Your task to perform on an android device: toggle data saver in the chrome app Image 0: 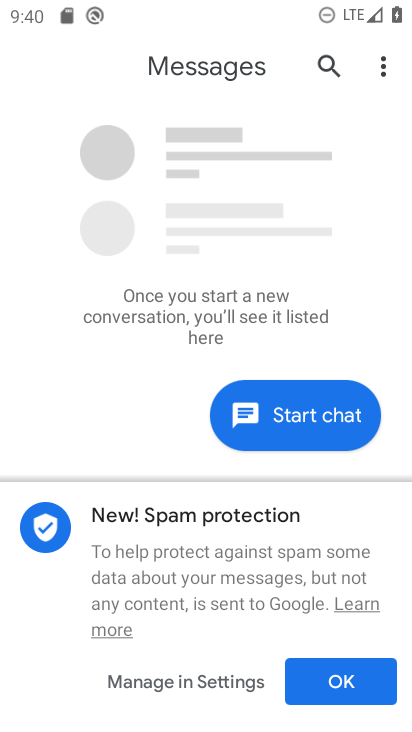
Step 0: press home button
Your task to perform on an android device: toggle data saver in the chrome app Image 1: 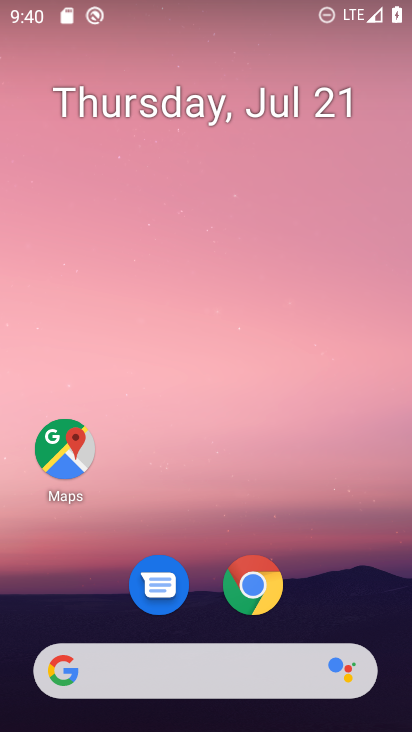
Step 1: click (266, 586)
Your task to perform on an android device: toggle data saver in the chrome app Image 2: 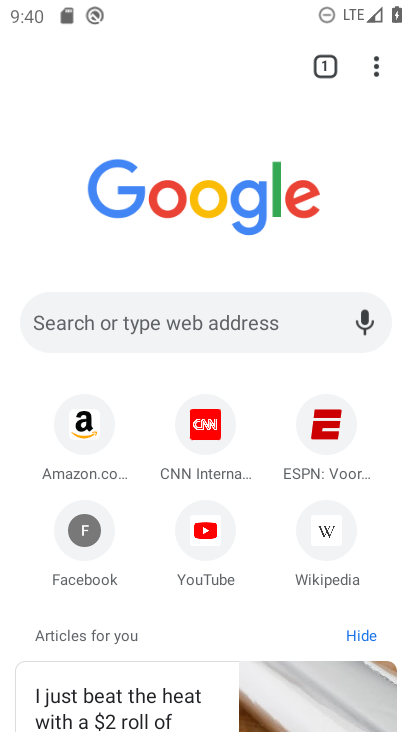
Step 2: click (372, 71)
Your task to perform on an android device: toggle data saver in the chrome app Image 3: 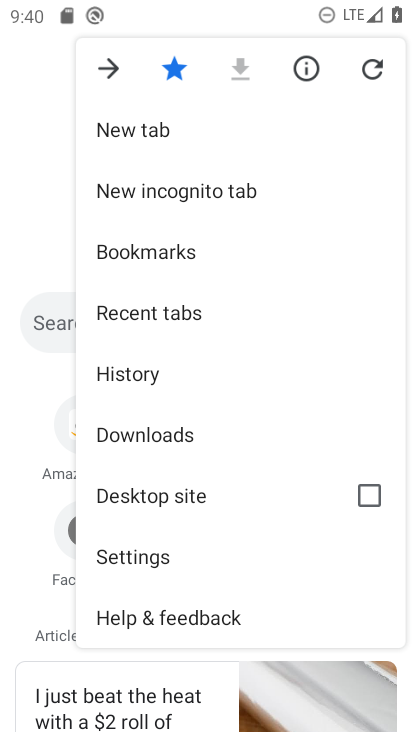
Step 3: click (157, 555)
Your task to perform on an android device: toggle data saver in the chrome app Image 4: 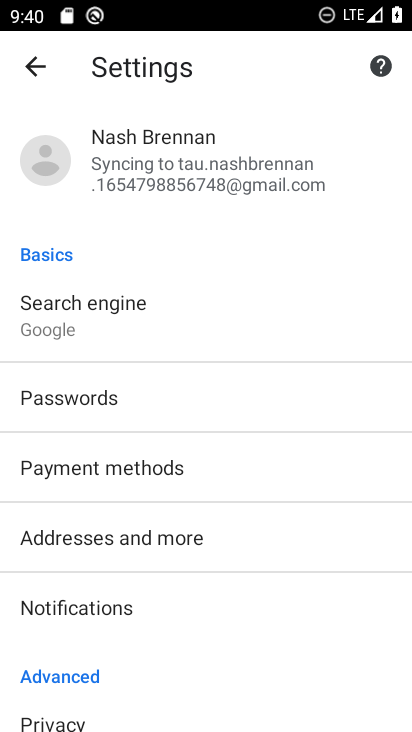
Step 4: drag from (224, 622) to (227, 192)
Your task to perform on an android device: toggle data saver in the chrome app Image 5: 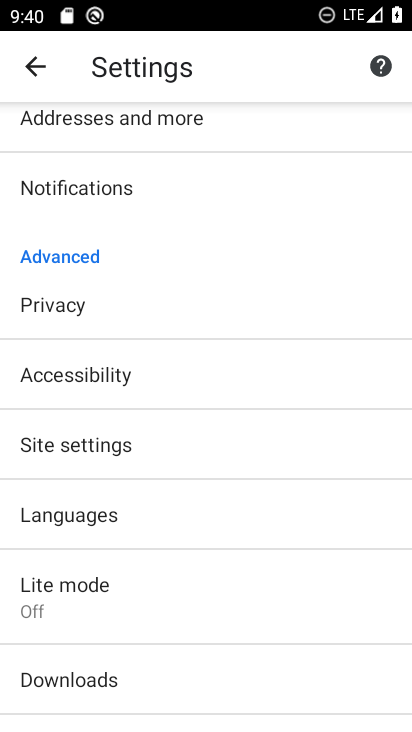
Step 5: click (181, 618)
Your task to perform on an android device: toggle data saver in the chrome app Image 6: 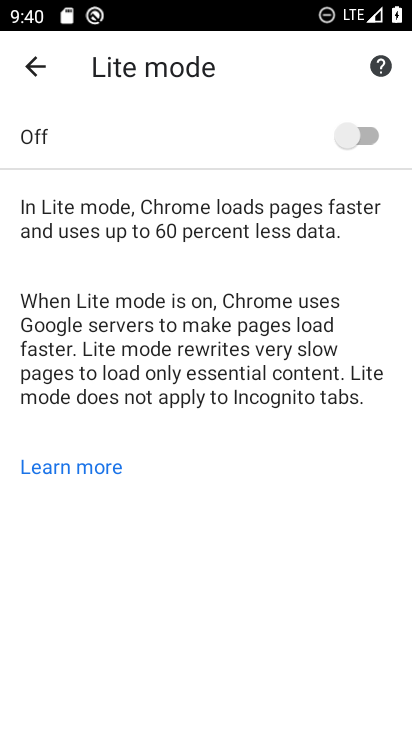
Step 6: click (359, 128)
Your task to perform on an android device: toggle data saver in the chrome app Image 7: 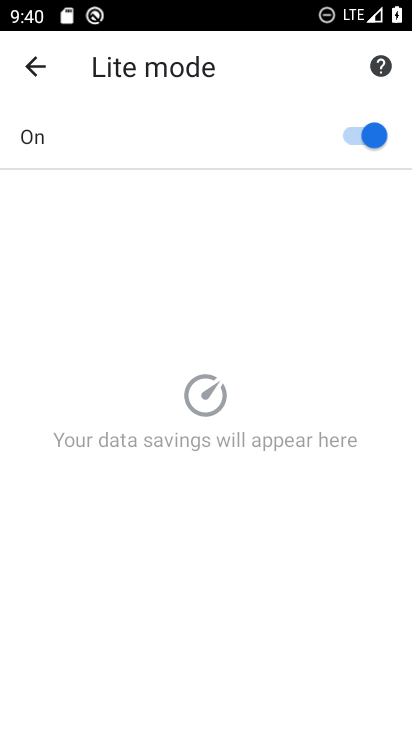
Step 7: task complete